Your task to perform on an android device: Go to Yahoo.com Image 0: 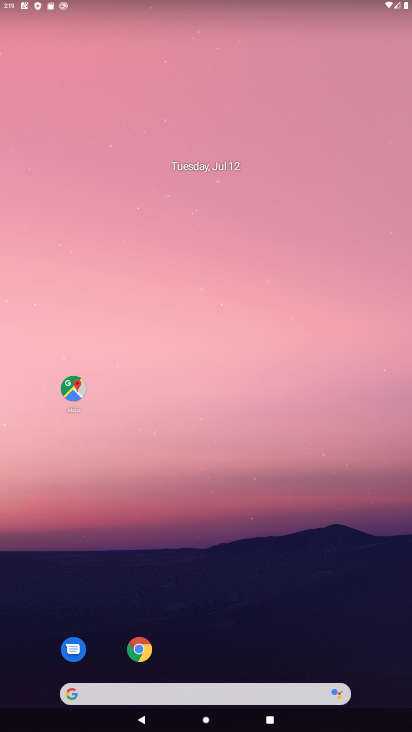
Step 0: drag from (303, 636) to (180, 168)
Your task to perform on an android device: Go to Yahoo.com Image 1: 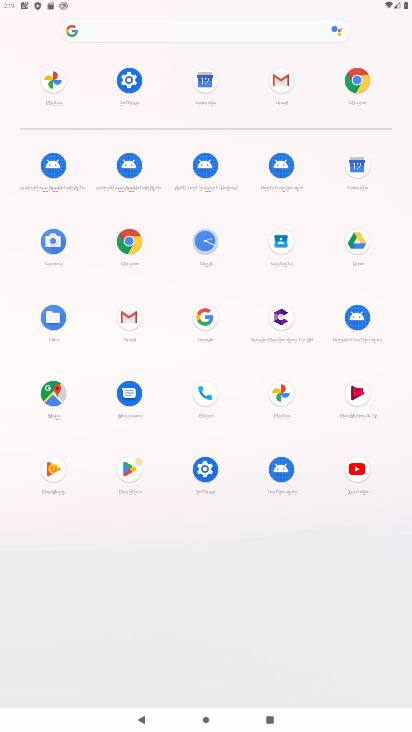
Step 1: click (346, 86)
Your task to perform on an android device: Go to Yahoo.com Image 2: 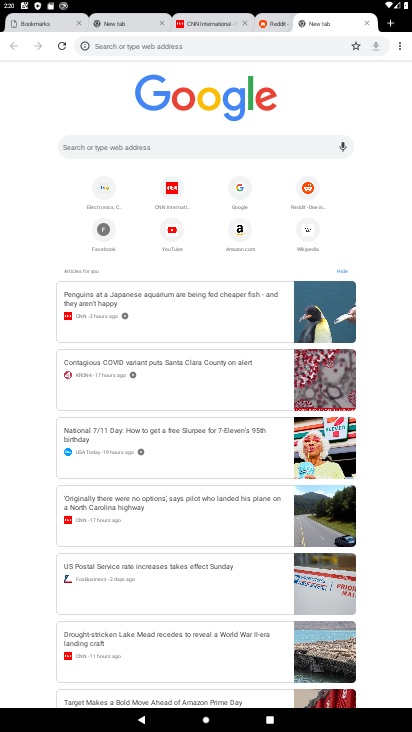
Step 2: click (180, 152)
Your task to perform on an android device: Go to Yahoo.com Image 3: 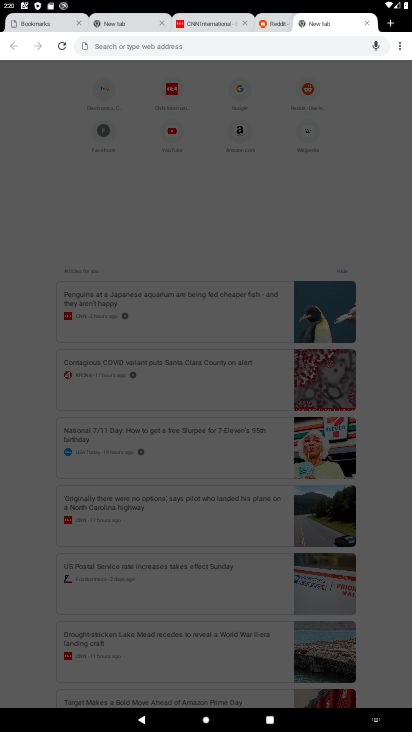
Step 3: click (339, 136)
Your task to perform on an android device: Go to Yahoo.com Image 4: 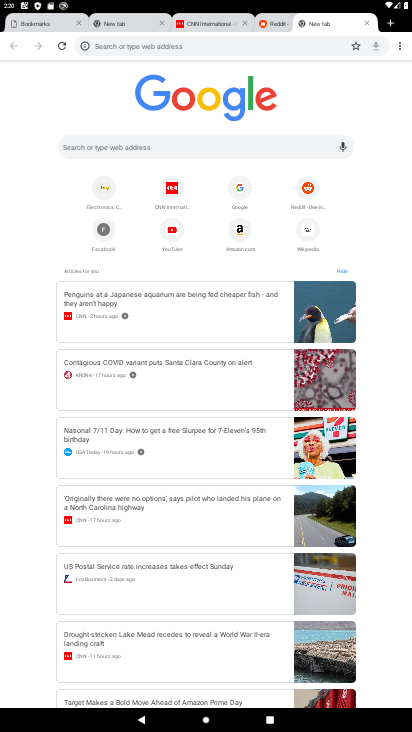
Step 4: click (127, 136)
Your task to perform on an android device: Go to Yahoo.com Image 5: 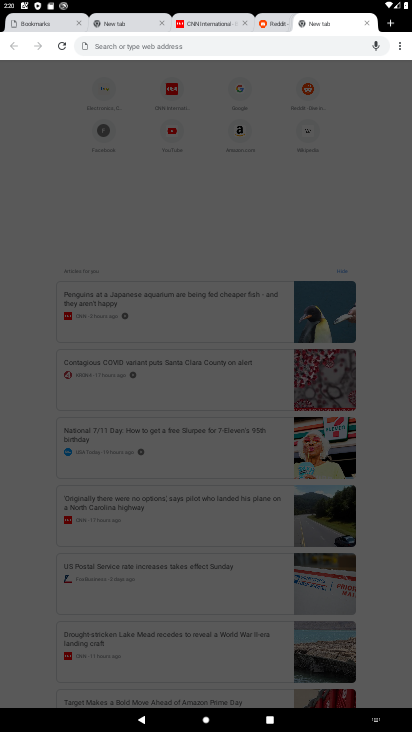
Step 5: type "yahoo.com"
Your task to perform on an android device: Go to Yahoo.com Image 6: 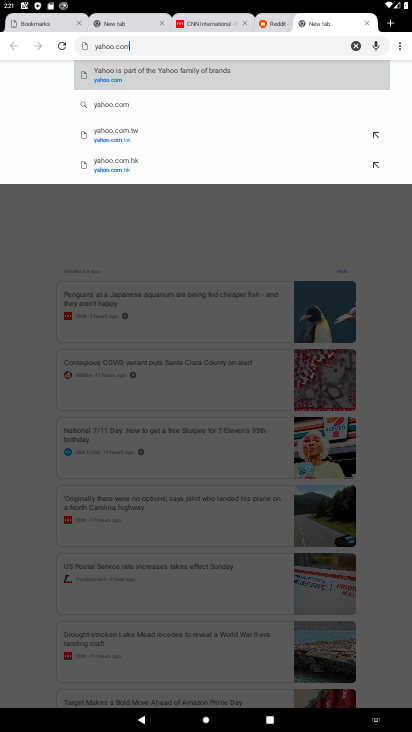
Step 6: click (121, 92)
Your task to perform on an android device: Go to Yahoo.com Image 7: 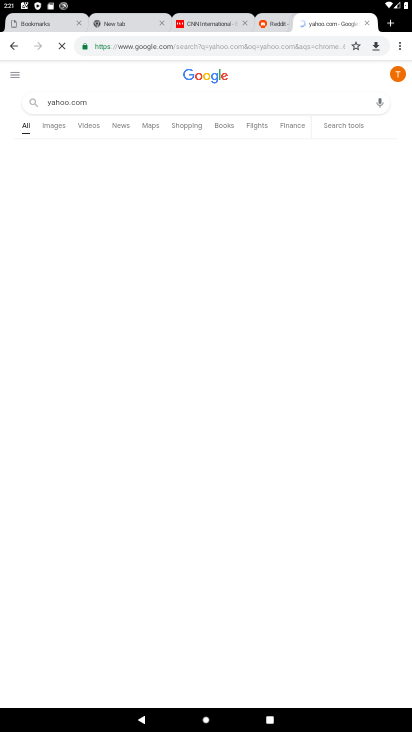
Step 7: task complete